Your task to perform on an android device: turn off translation in the chrome app Image 0: 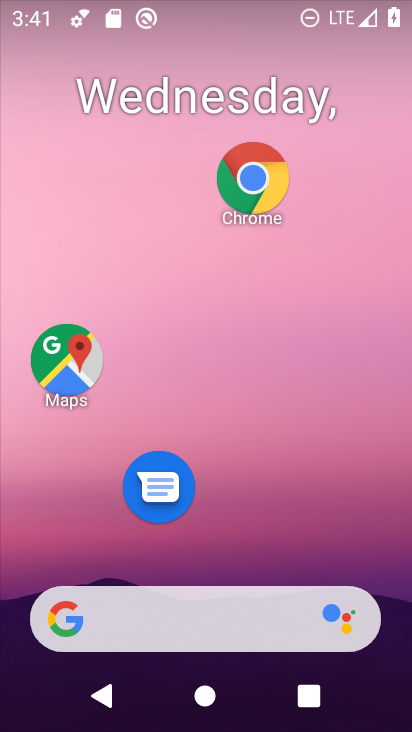
Step 0: click (251, 160)
Your task to perform on an android device: turn off translation in the chrome app Image 1: 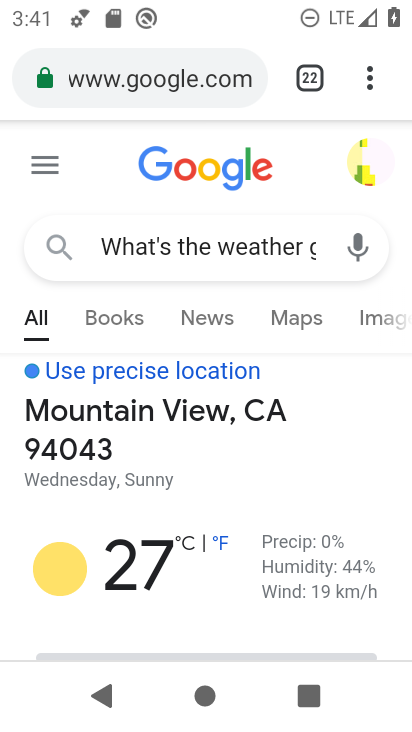
Step 1: click (375, 84)
Your task to perform on an android device: turn off translation in the chrome app Image 2: 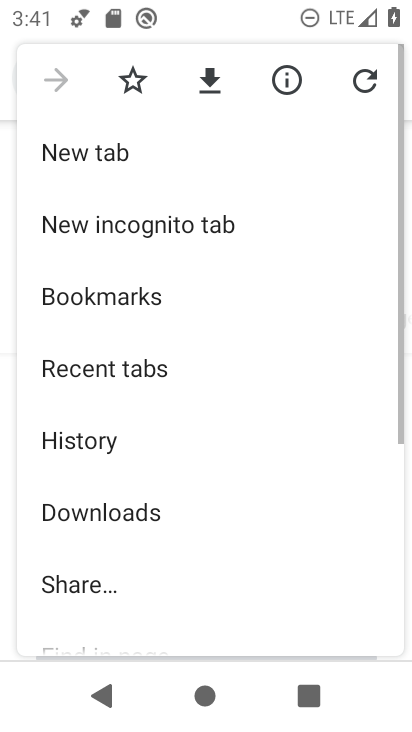
Step 2: drag from (168, 547) to (215, 168)
Your task to perform on an android device: turn off translation in the chrome app Image 3: 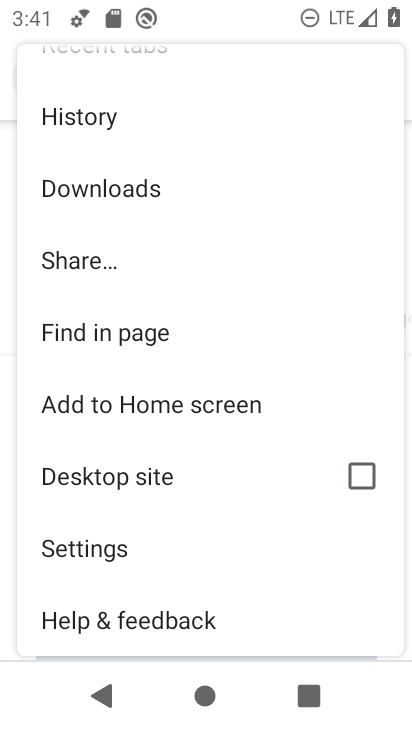
Step 3: click (131, 543)
Your task to perform on an android device: turn off translation in the chrome app Image 4: 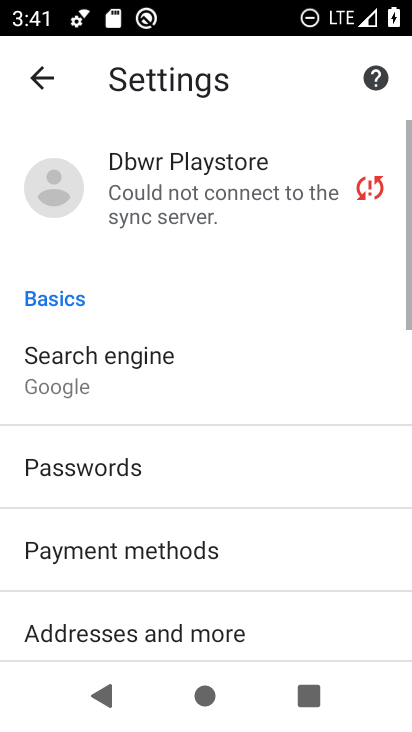
Step 4: drag from (235, 548) to (268, 200)
Your task to perform on an android device: turn off translation in the chrome app Image 5: 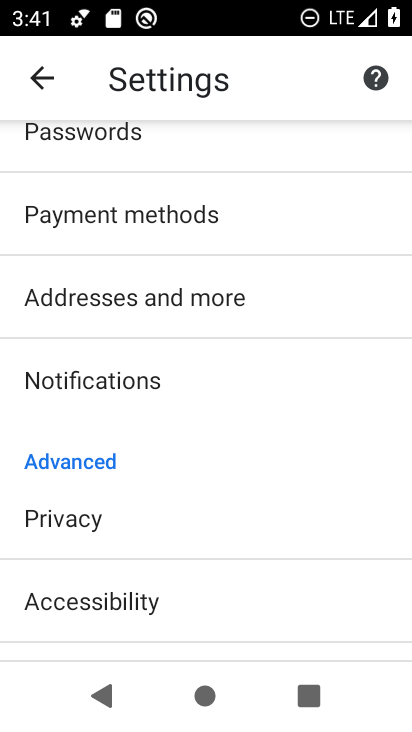
Step 5: drag from (157, 583) to (233, 237)
Your task to perform on an android device: turn off translation in the chrome app Image 6: 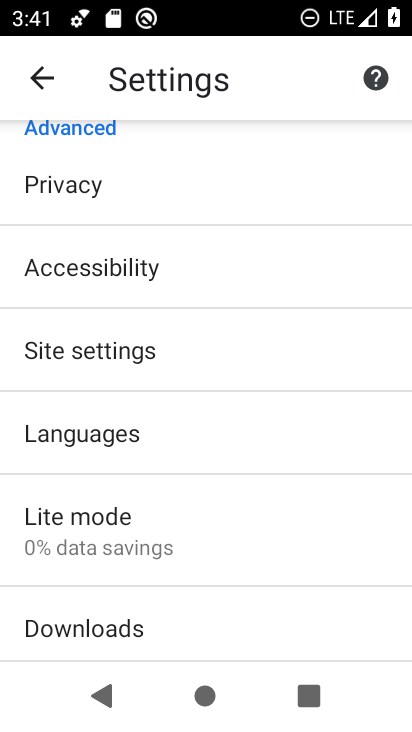
Step 6: click (134, 441)
Your task to perform on an android device: turn off translation in the chrome app Image 7: 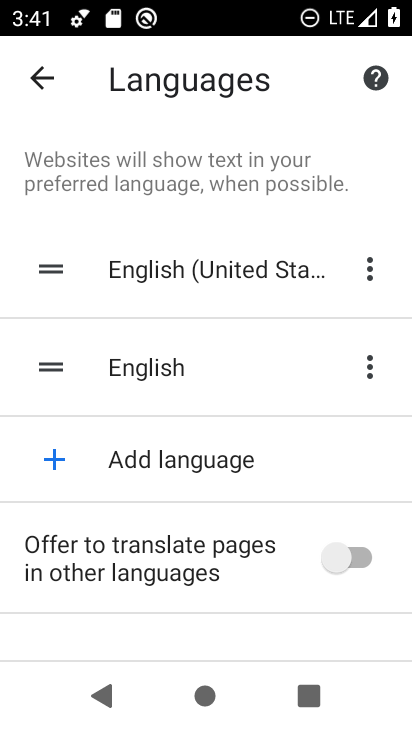
Step 7: click (339, 558)
Your task to perform on an android device: turn off translation in the chrome app Image 8: 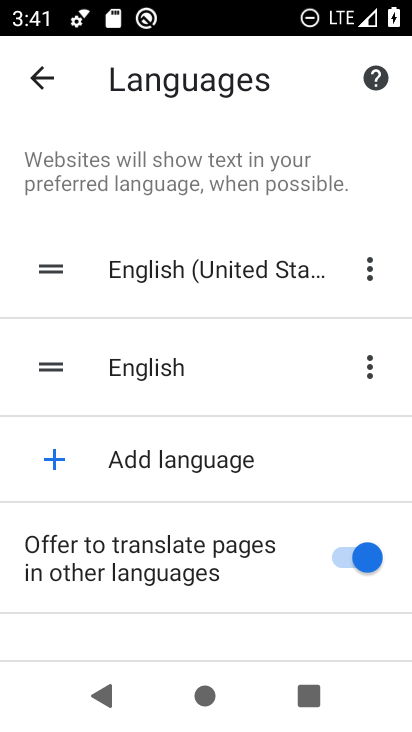
Step 8: click (343, 557)
Your task to perform on an android device: turn off translation in the chrome app Image 9: 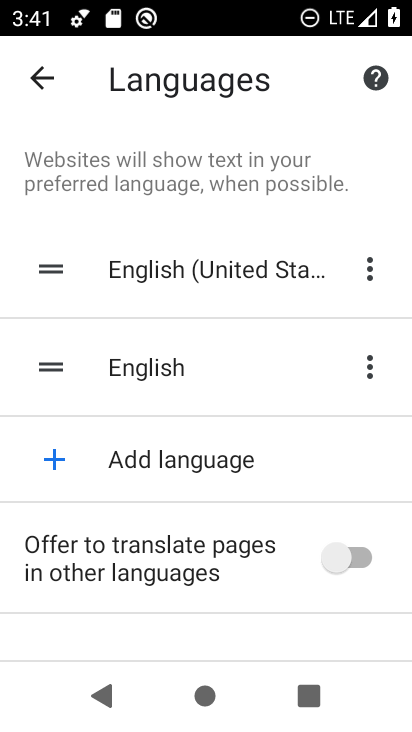
Step 9: task complete